Your task to perform on an android device: Open the stopwatch Image 0: 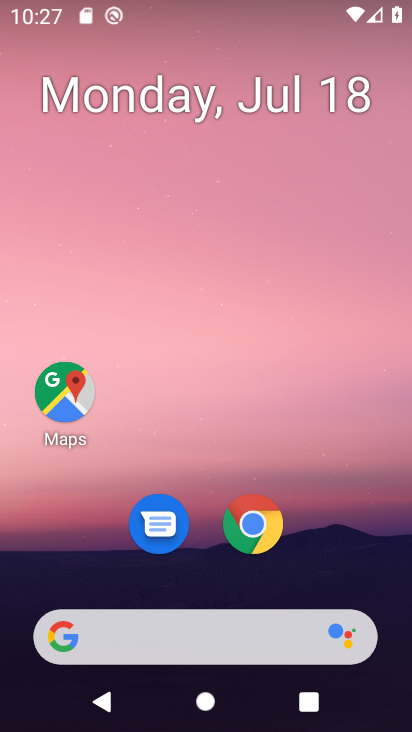
Step 0: drag from (237, 98) to (240, 16)
Your task to perform on an android device: Open the stopwatch Image 1: 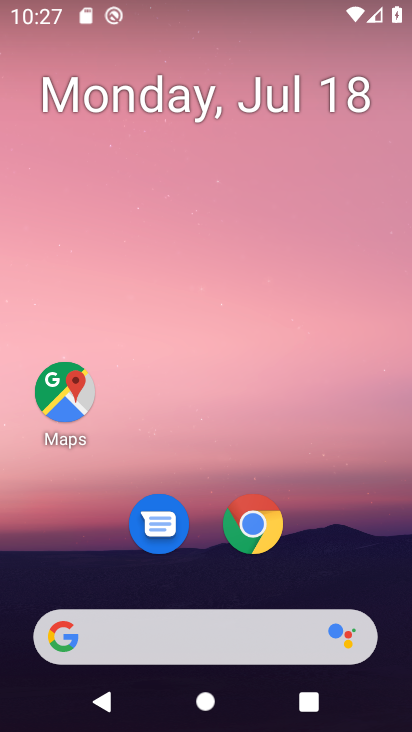
Step 1: drag from (213, 446) to (263, 8)
Your task to perform on an android device: Open the stopwatch Image 2: 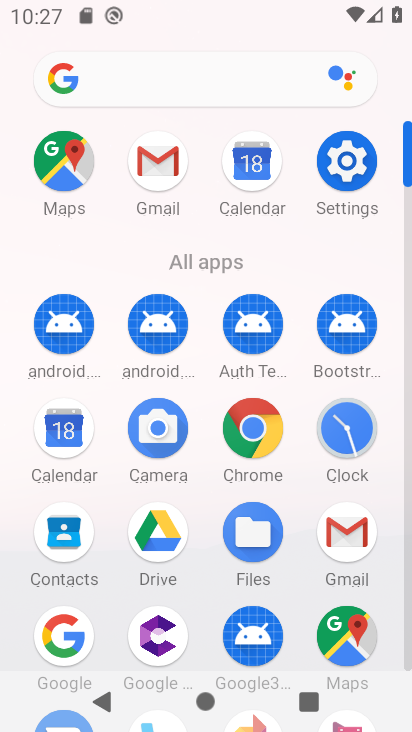
Step 2: click (348, 421)
Your task to perform on an android device: Open the stopwatch Image 3: 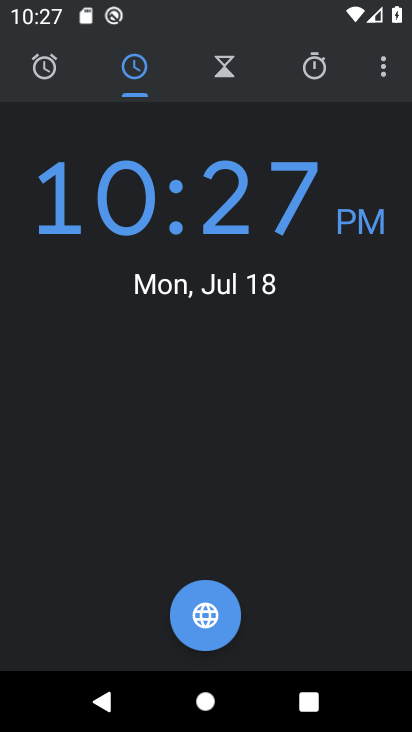
Step 3: click (310, 72)
Your task to perform on an android device: Open the stopwatch Image 4: 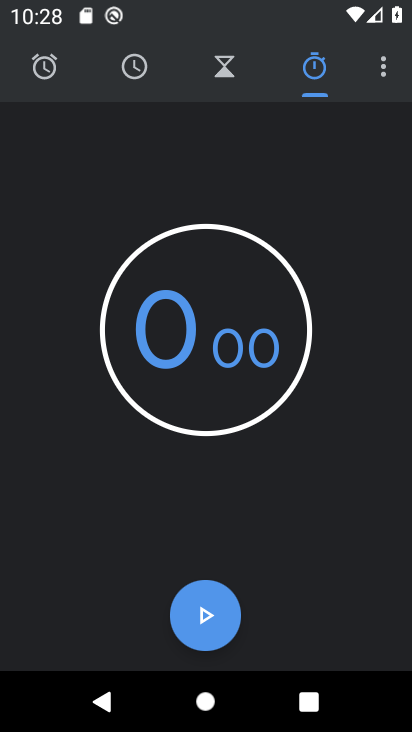
Step 4: task complete